Your task to perform on an android device: Open ESPN.com Image 0: 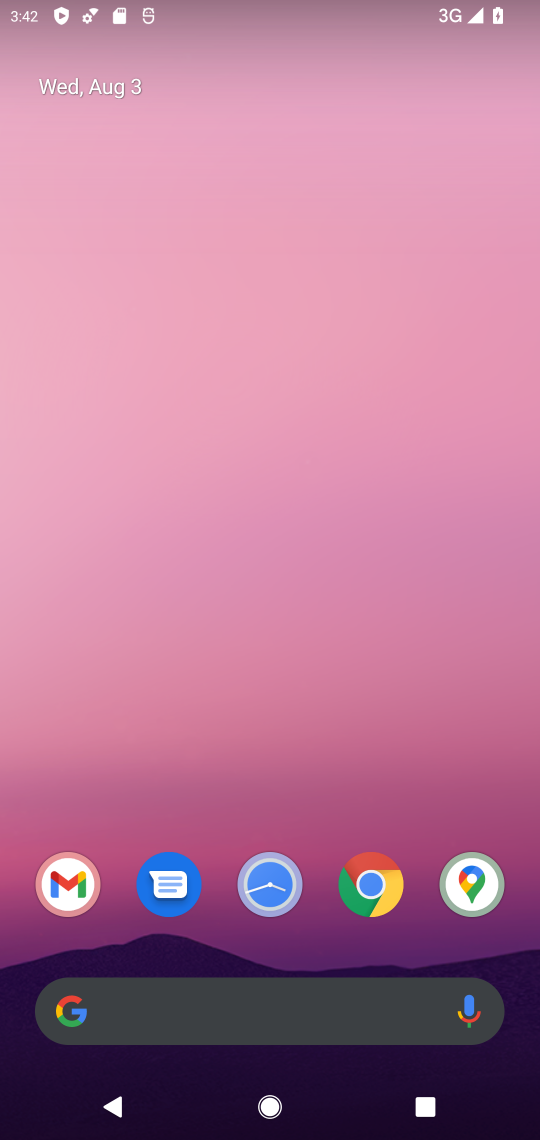
Step 0: click (245, 1000)
Your task to perform on an android device: Open ESPN.com Image 1: 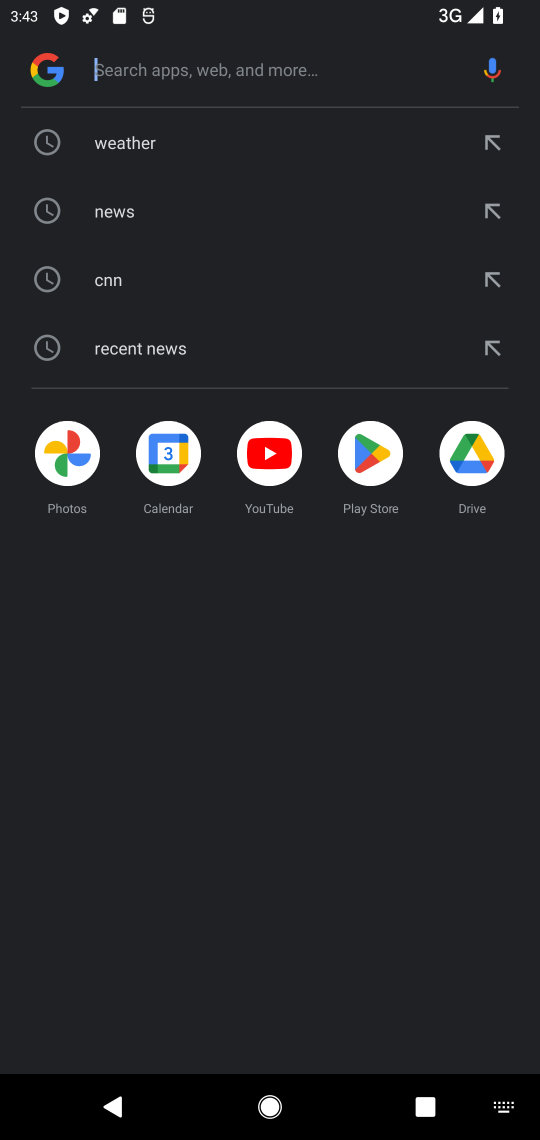
Step 1: type "espn"
Your task to perform on an android device: Open ESPN.com Image 2: 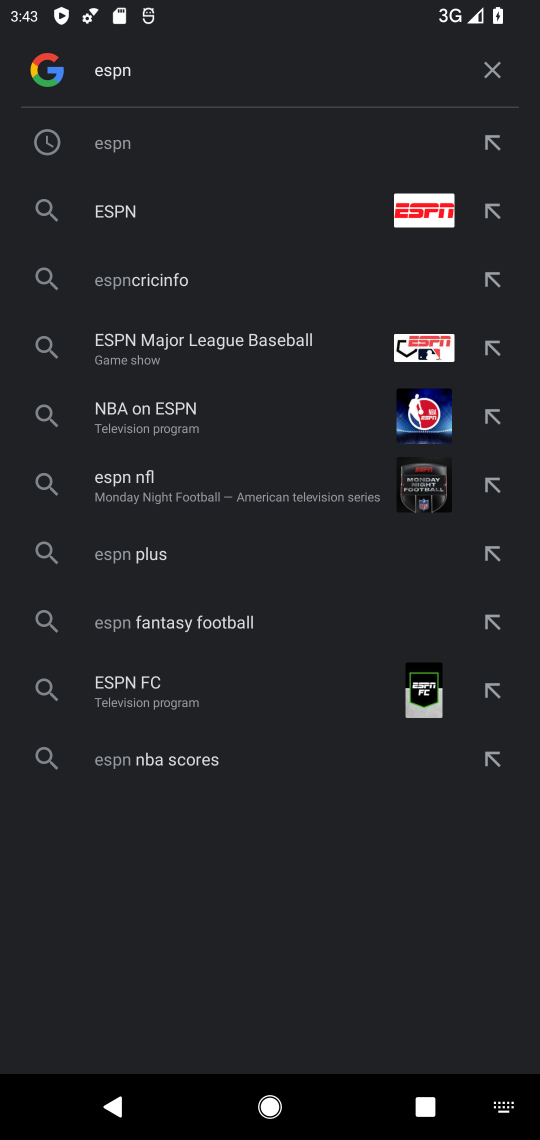
Step 2: click (220, 145)
Your task to perform on an android device: Open ESPN.com Image 3: 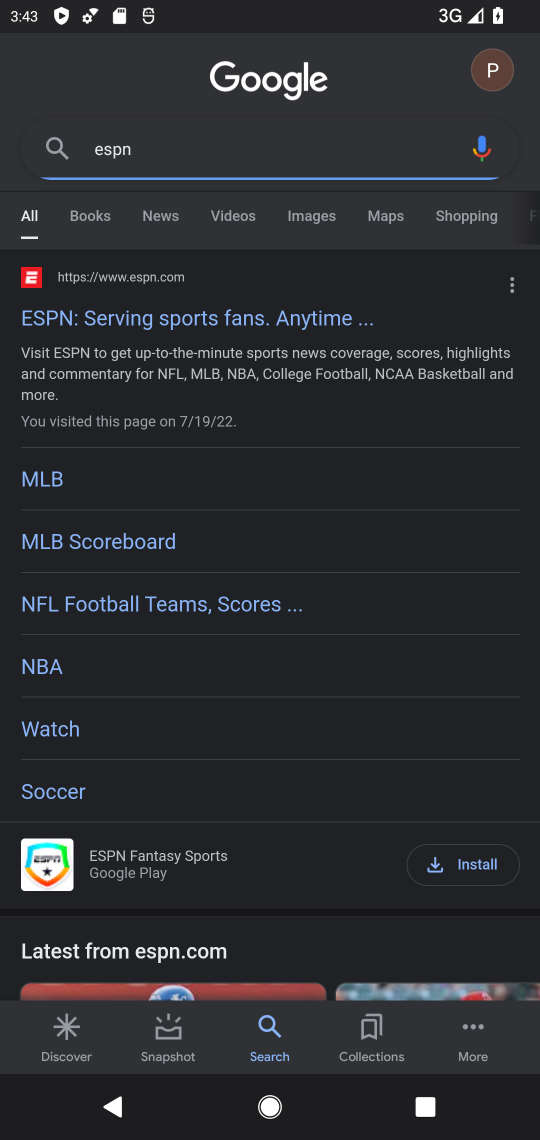
Step 3: task complete